Your task to perform on an android device: turn on notifications settings in the gmail app Image 0: 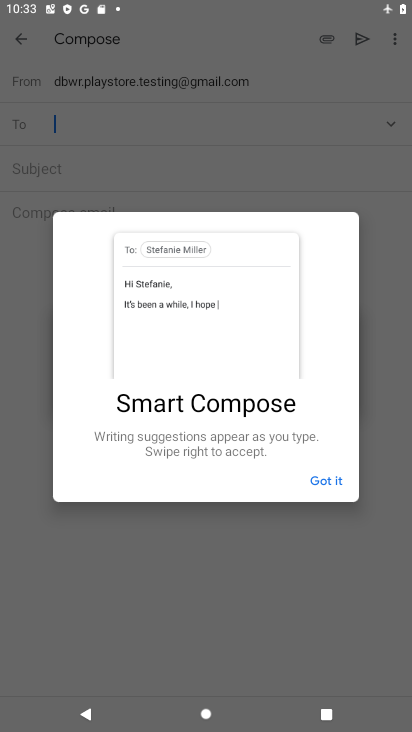
Step 0: press home button
Your task to perform on an android device: turn on notifications settings in the gmail app Image 1: 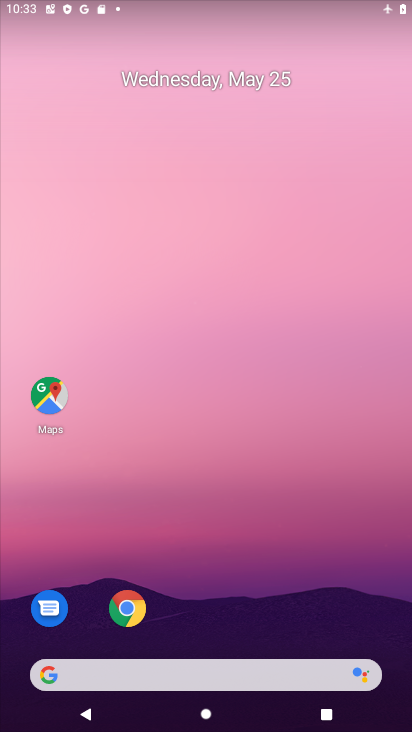
Step 1: drag from (250, 647) to (233, 3)
Your task to perform on an android device: turn on notifications settings in the gmail app Image 2: 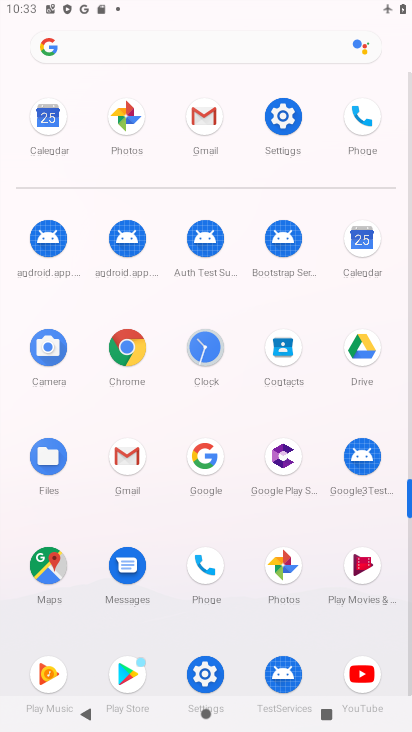
Step 2: click (202, 124)
Your task to perform on an android device: turn on notifications settings in the gmail app Image 3: 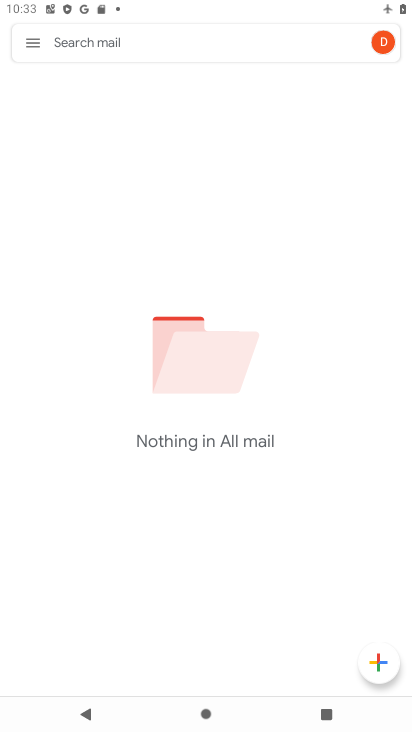
Step 3: click (26, 36)
Your task to perform on an android device: turn on notifications settings in the gmail app Image 4: 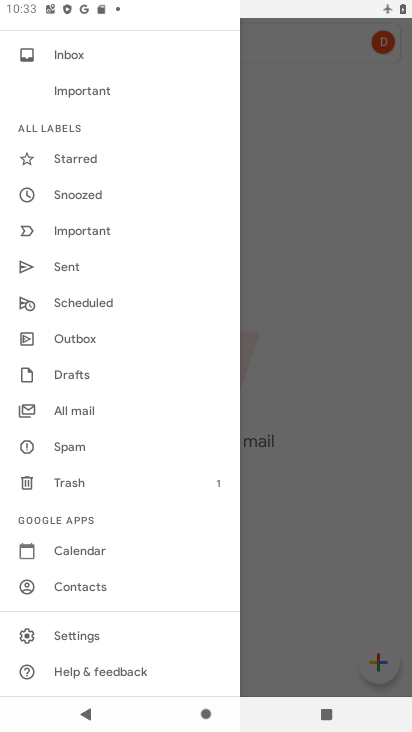
Step 4: click (79, 639)
Your task to perform on an android device: turn on notifications settings in the gmail app Image 5: 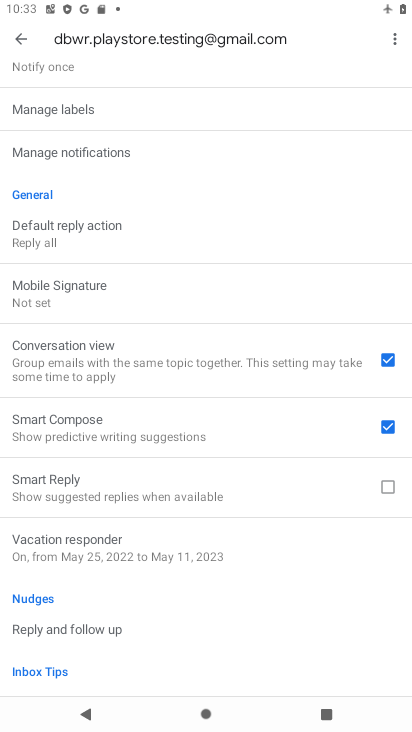
Step 5: click (20, 43)
Your task to perform on an android device: turn on notifications settings in the gmail app Image 6: 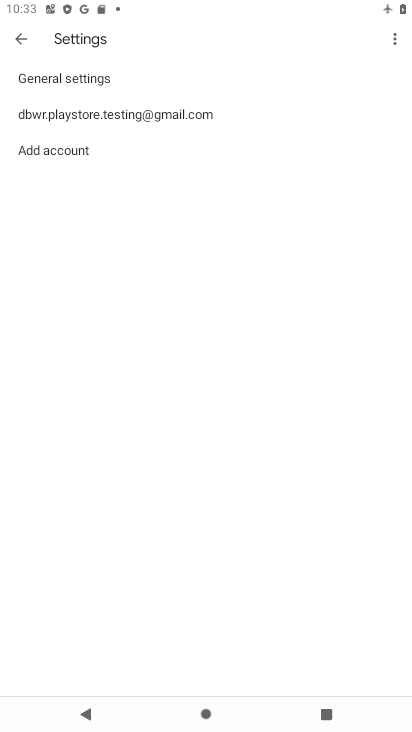
Step 6: click (58, 86)
Your task to perform on an android device: turn on notifications settings in the gmail app Image 7: 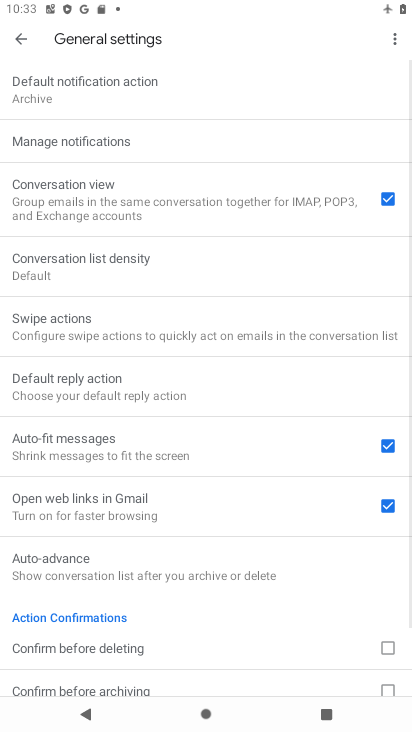
Step 7: click (58, 144)
Your task to perform on an android device: turn on notifications settings in the gmail app Image 8: 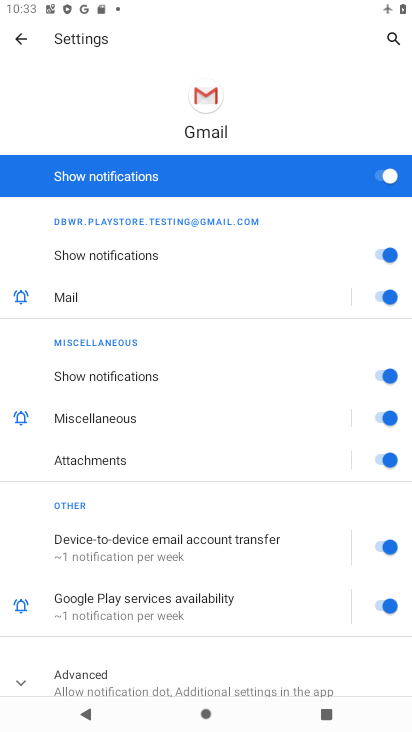
Step 8: task complete